Your task to perform on an android device: find snoozed emails in the gmail app Image 0: 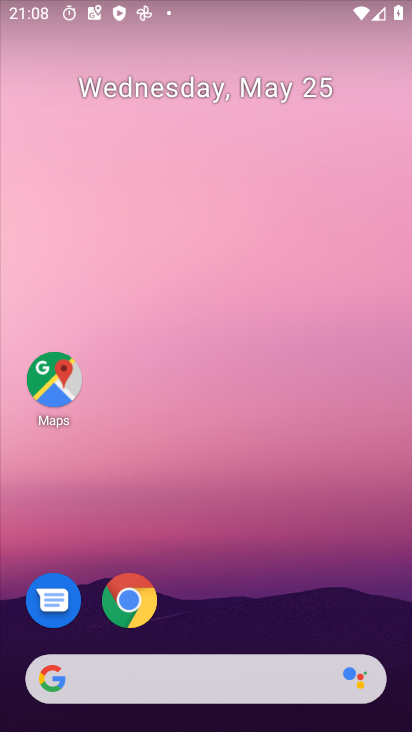
Step 0: drag from (327, 601) to (301, 186)
Your task to perform on an android device: find snoozed emails in the gmail app Image 1: 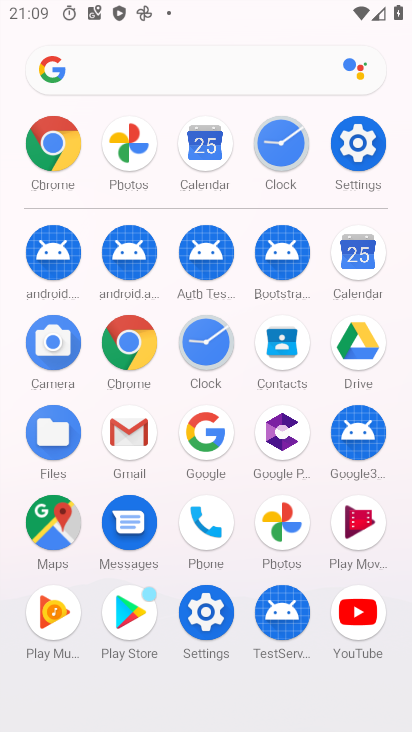
Step 1: click (121, 432)
Your task to perform on an android device: find snoozed emails in the gmail app Image 2: 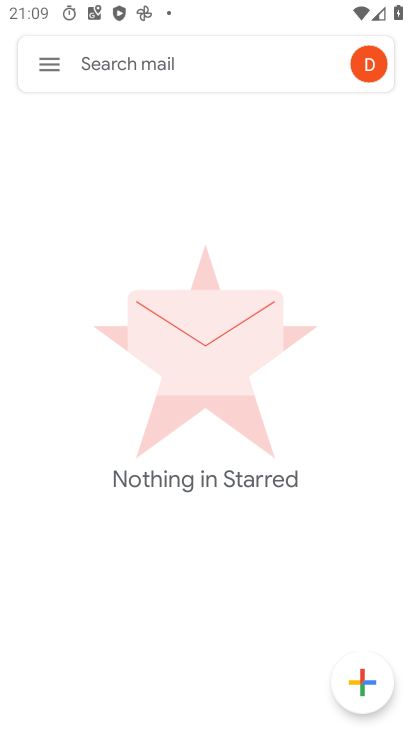
Step 2: click (26, 69)
Your task to perform on an android device: find snoozed emails in the gmail app Image 3: 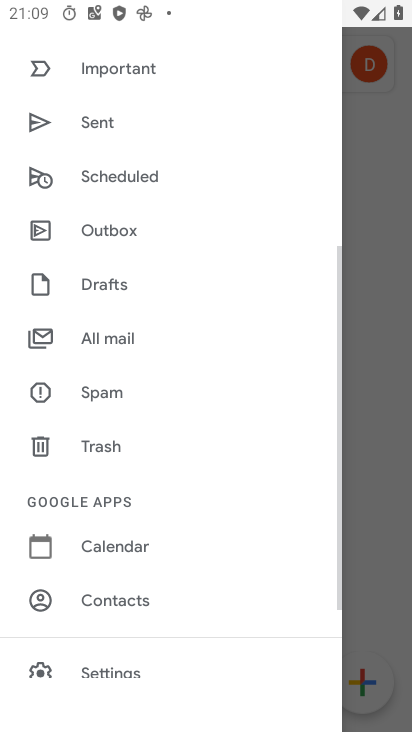
Step 3: drag from (169, 568) to (178, 160)
Your task to perform on an android device: find snoozed emails in the gmail app Image 4: 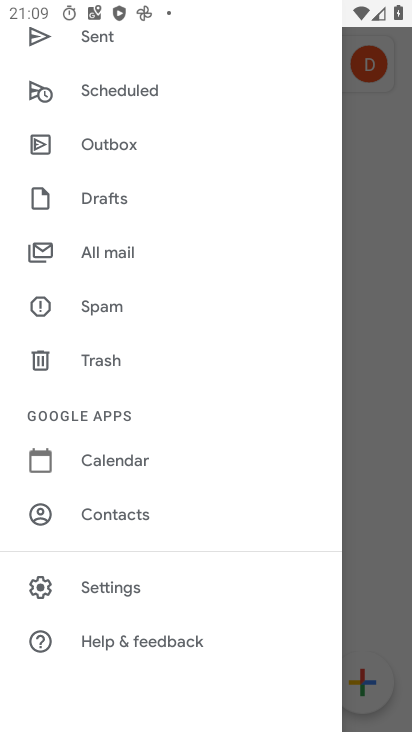
Step 4: click (166, 577)
Your task to perform on an android device: find snoozed emails in the gmail app Image 5: 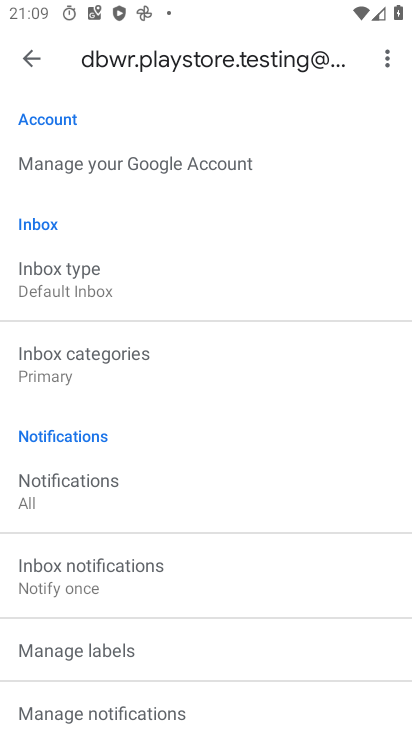
Step 5: drag from (170, 607) to (200, 296)
Your task to perform on an android device: find snoozed emails in the gmail app Image 6: 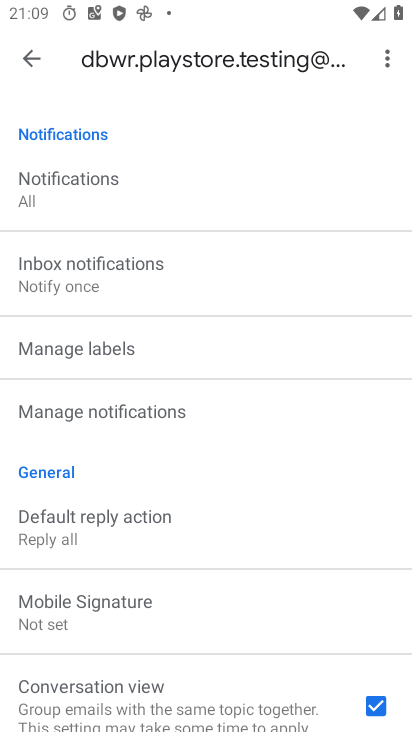
Step 6: drag from (258, 619) to (287, 265)
Your task to perform on an android device: find snoozed emails in the gmail app Image 7: 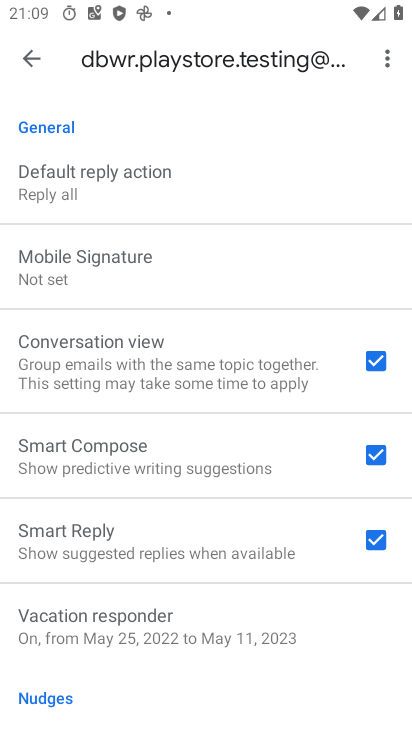
Step 7: click (25, 55)
Your task to perform on an android device: find snoozed emails in the gmail app Image 8: 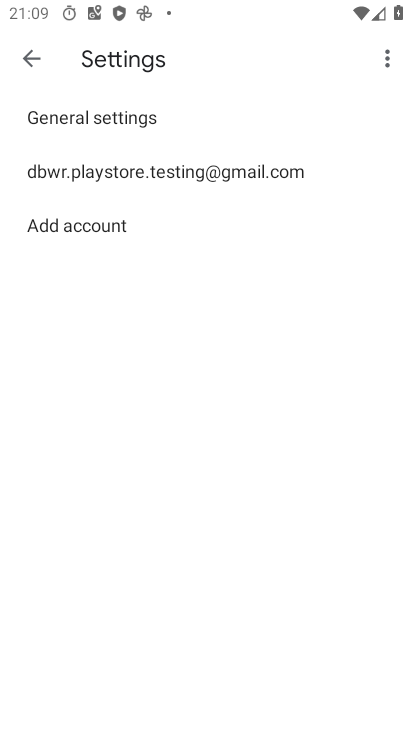
Step 8: click (30, 51)
Your task to perform on an android device: find snoozed emails in the gmail app Image 9: 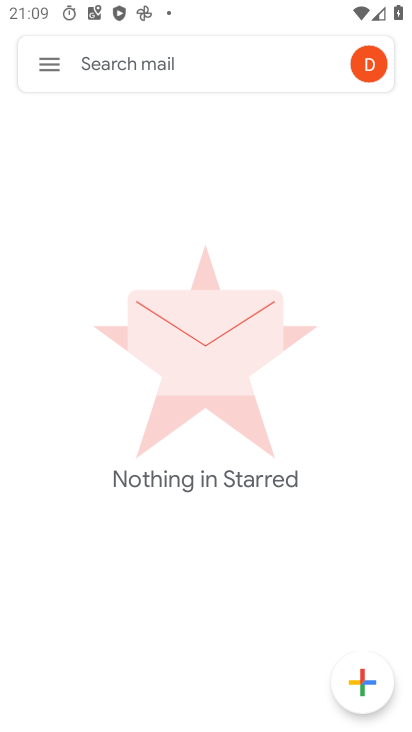
Step 9: click (47, 72)
Your task to perform on an android device: find snoozed emails in the gmail app Image 10: 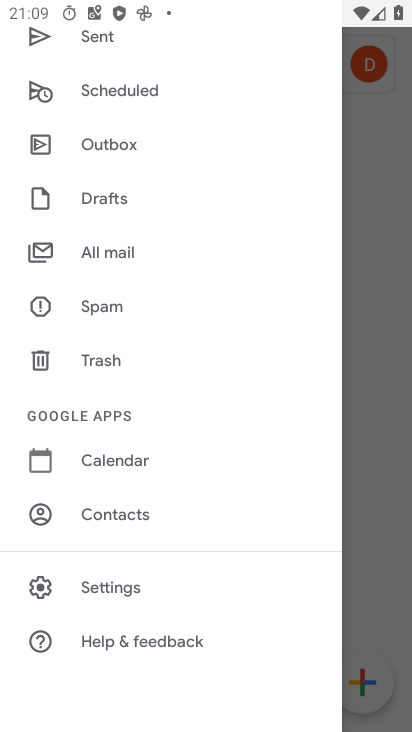
Step 10: drag from (158, 238) to (132, 589)
Your task to perform on an android device: find snoozed emails in the gmail app Image 11: 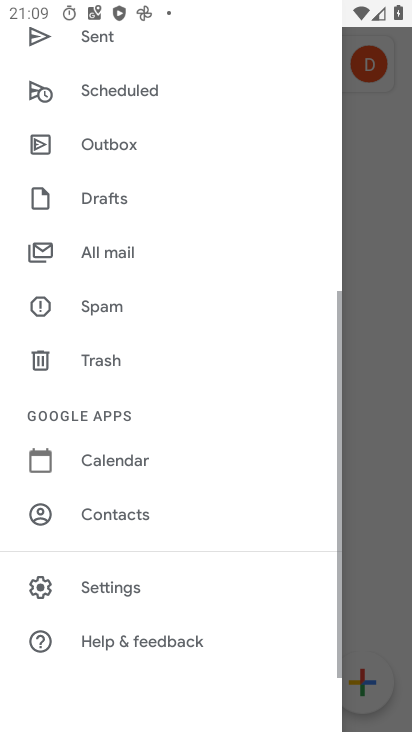
Step 11: drag from (169, 197) to (250, 653)
Your task to perform on an android device: find snoozed emails in the gmail app Image 12: 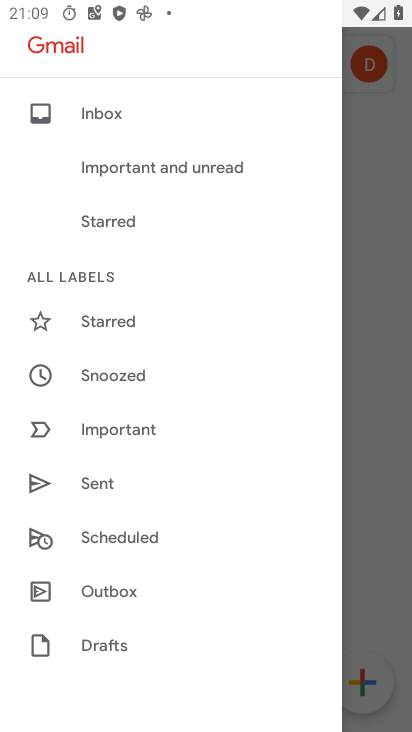
Step 12: click (143, 386)
Your task to perform on an android device: find snoozed emails in the gmail app Image 13: 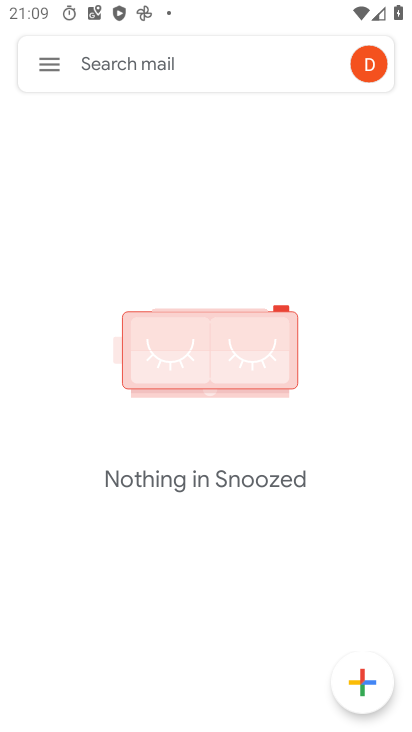
Step 13: task complete